Your task to perform on an android device: add a contact Image 0: 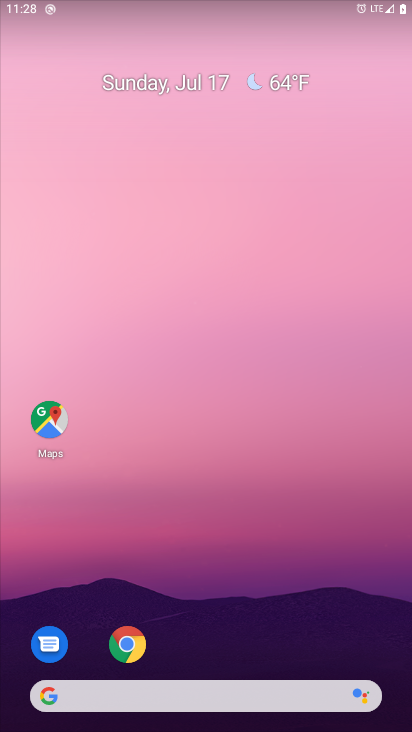
Step 0: press home button
Your task to perform on an android device: add a contact Image 1: 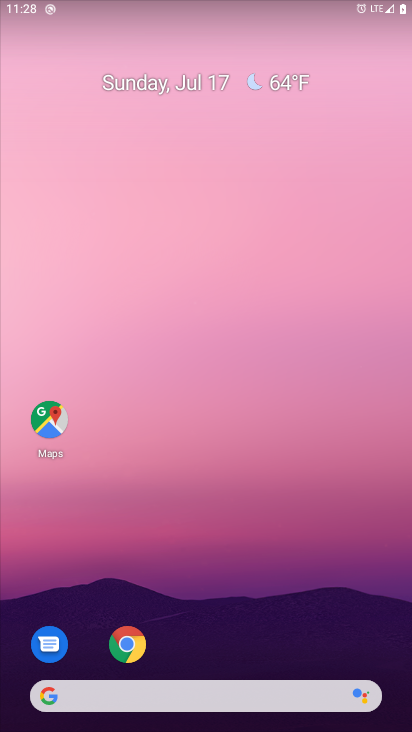
Step 1: drag from (267, 598) to (272, 106)
Your task to perform on an android device: add a contact Image 2: 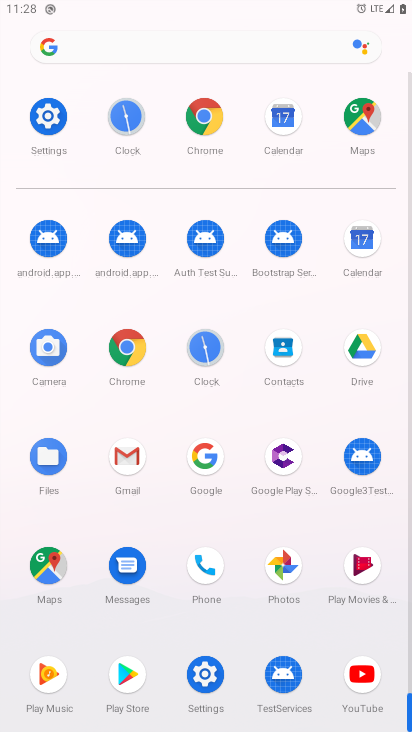
Step 2: click (288, 355)
Your task to perform on an android device: add a contact Image 3: 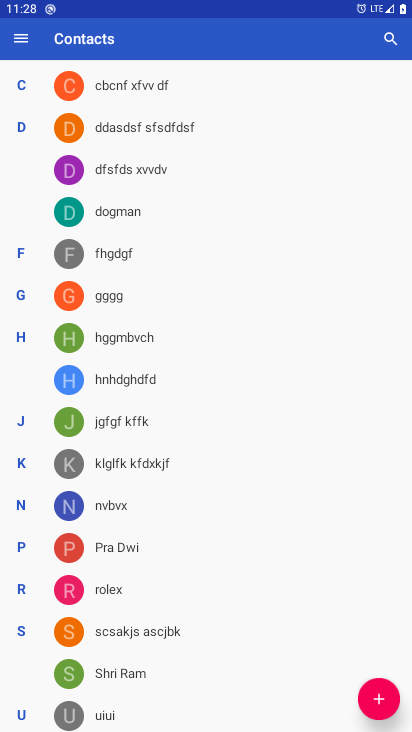
Step 3: click (375, 691)
Your task to perform on an android device: add a contact Image 4: 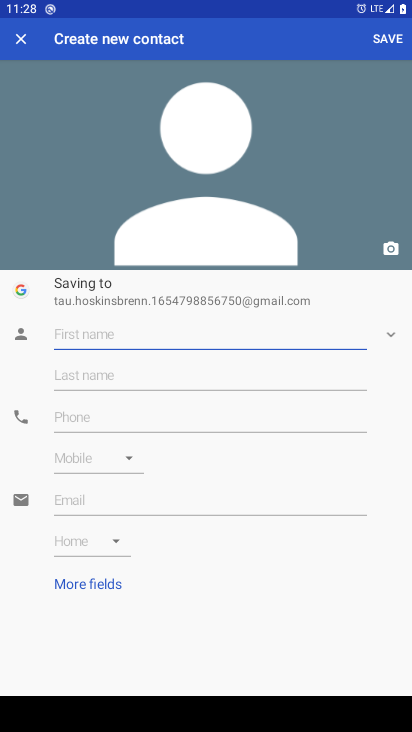
Step 4: click (129, 332)
Your task to perform on an android device: add a contact Image 5: 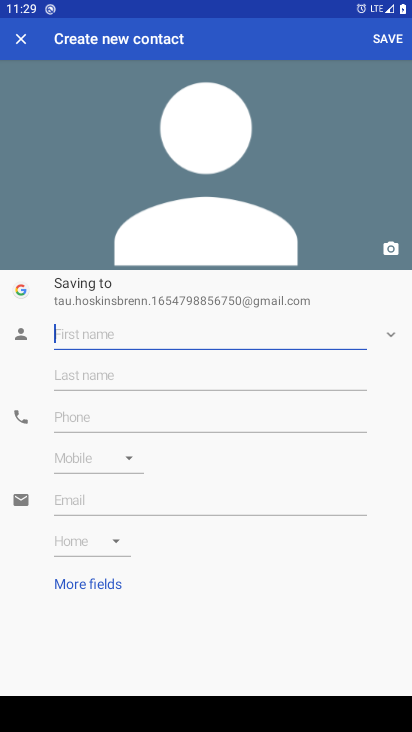
Step 5: type "ddddddss"
Your task to perform on an android device: add a contact Image 6: 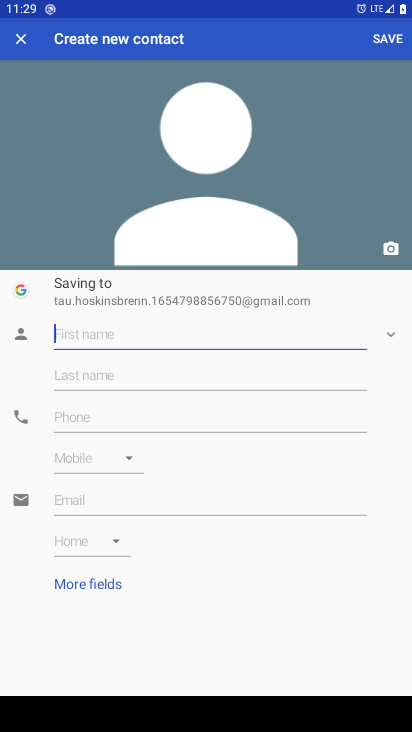
Step 6: click (119, 331)
Your task to perform on an android device: add a contact Image 7: 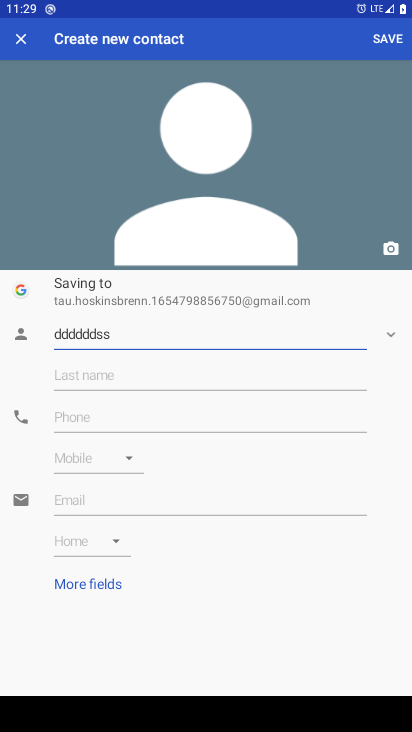
Step 7: click (84, 420)
Your task to perform on an android device: add a contact Image 8: 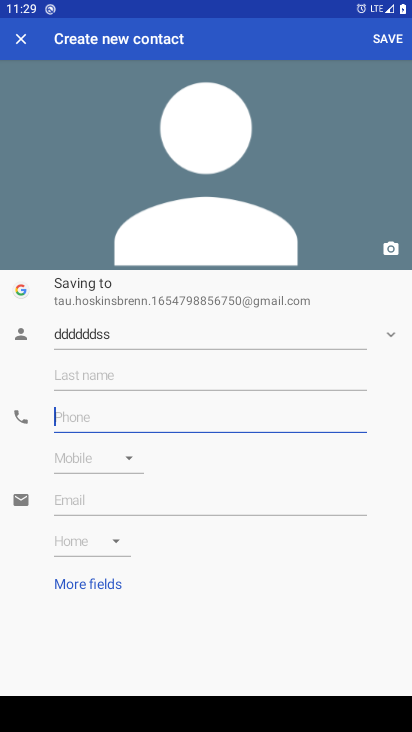
Step 8: type "4433443434343"
Your task to perform on an android device: add a contact Image 9: 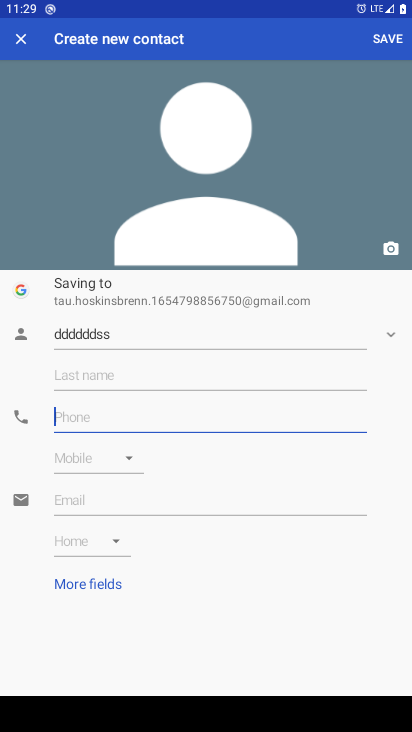
Step 9: click (77, 411)
Your task to perform on an android device: add a contact Image 10: 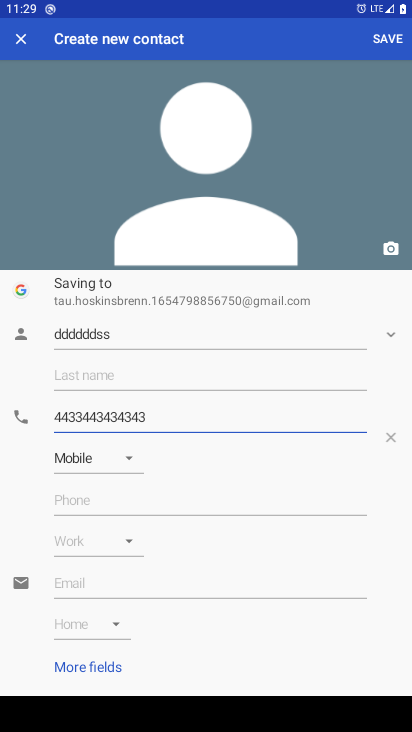
Step 10: task complete